Your task to perform on an android device: Go to settings Image 0: 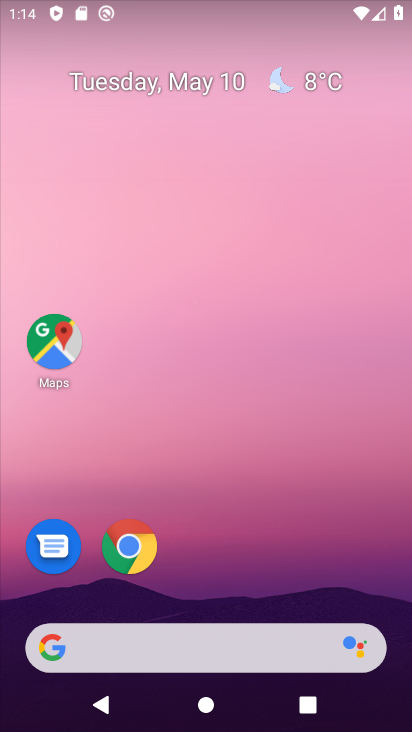
Step 0: drag from (398, 631) to (241, 74)
Your task to perform on an android device: Go to settings Image 1: 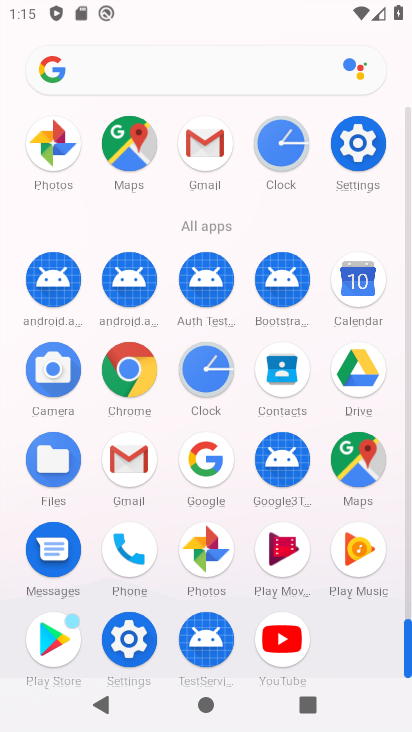
Step 1: click (127, 639)
Your task to perform on an android device: Go to settings Image 2: 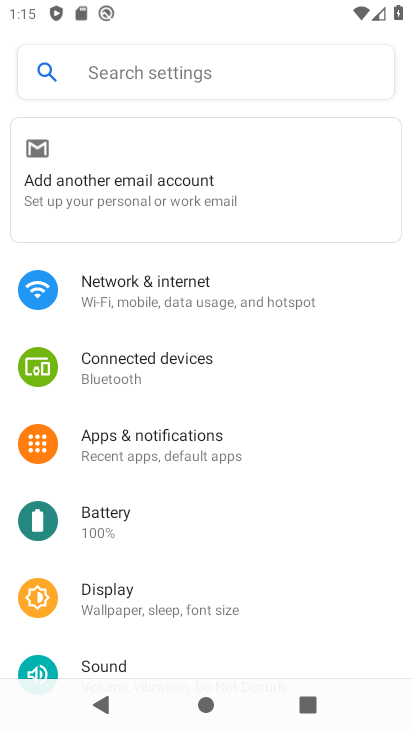
Step 2: task complete